Your task to perform on an android device: toggle improve location accuracy Image 0: 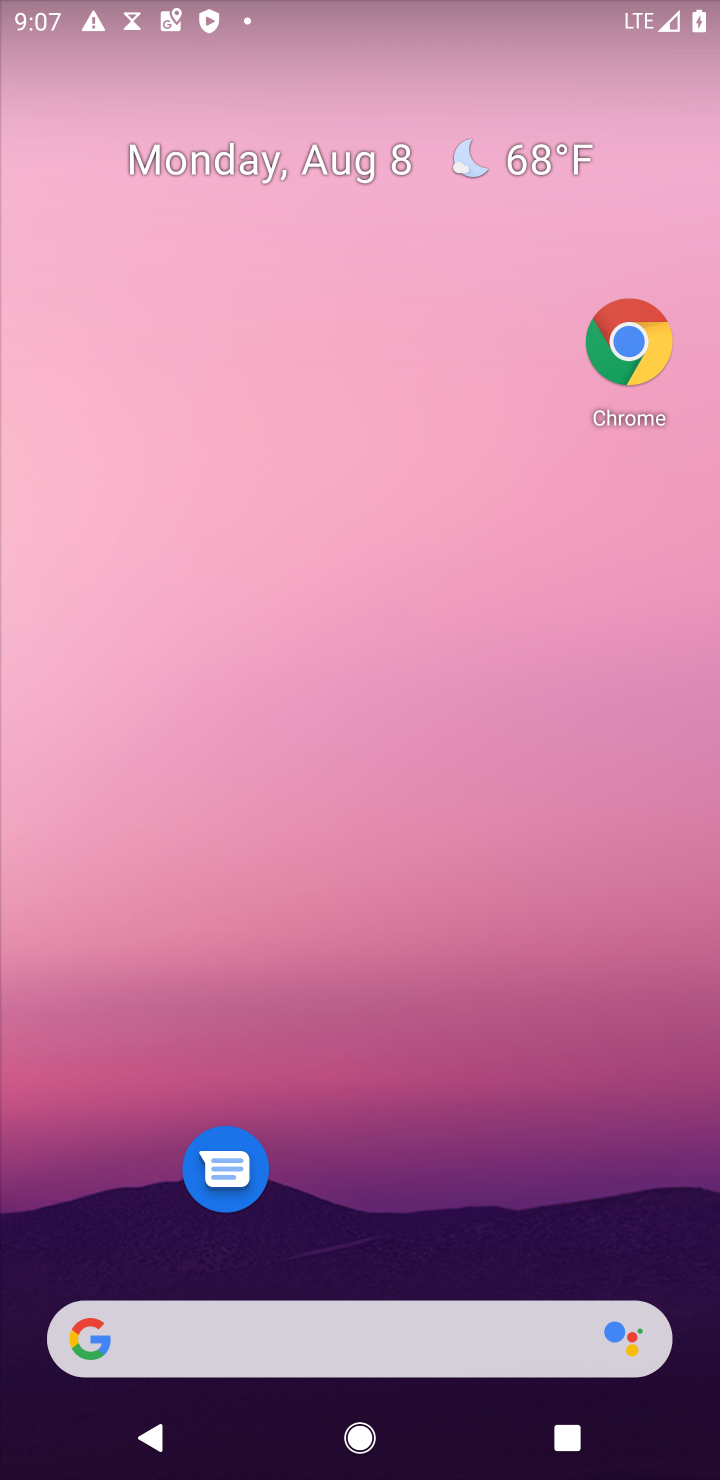
Step 0: press back button
Your task to perform on an android device: toggle improve location accuracy Image 1: 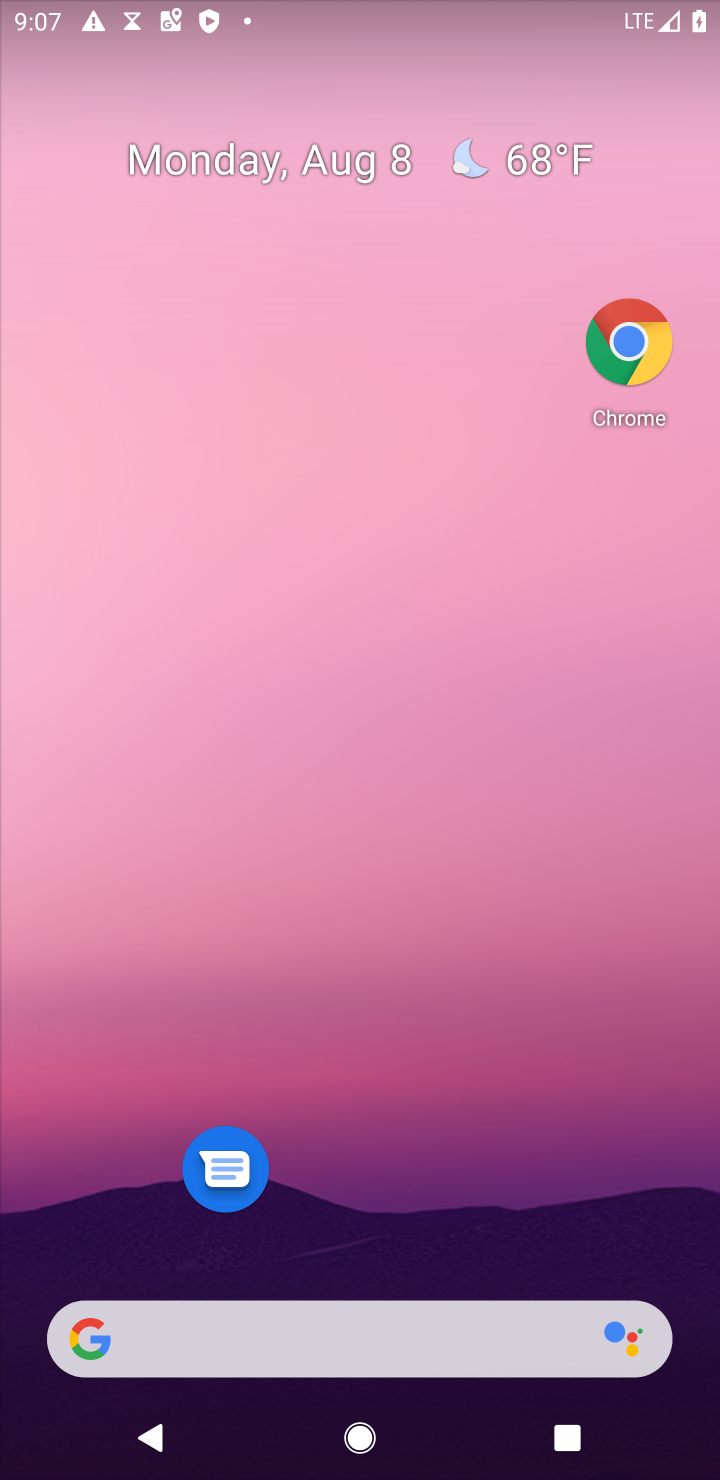
Step 1: drag from (463, 987) to (579, 158)
Your task to perform on an android device: toggle improve location accuracy Image 2: 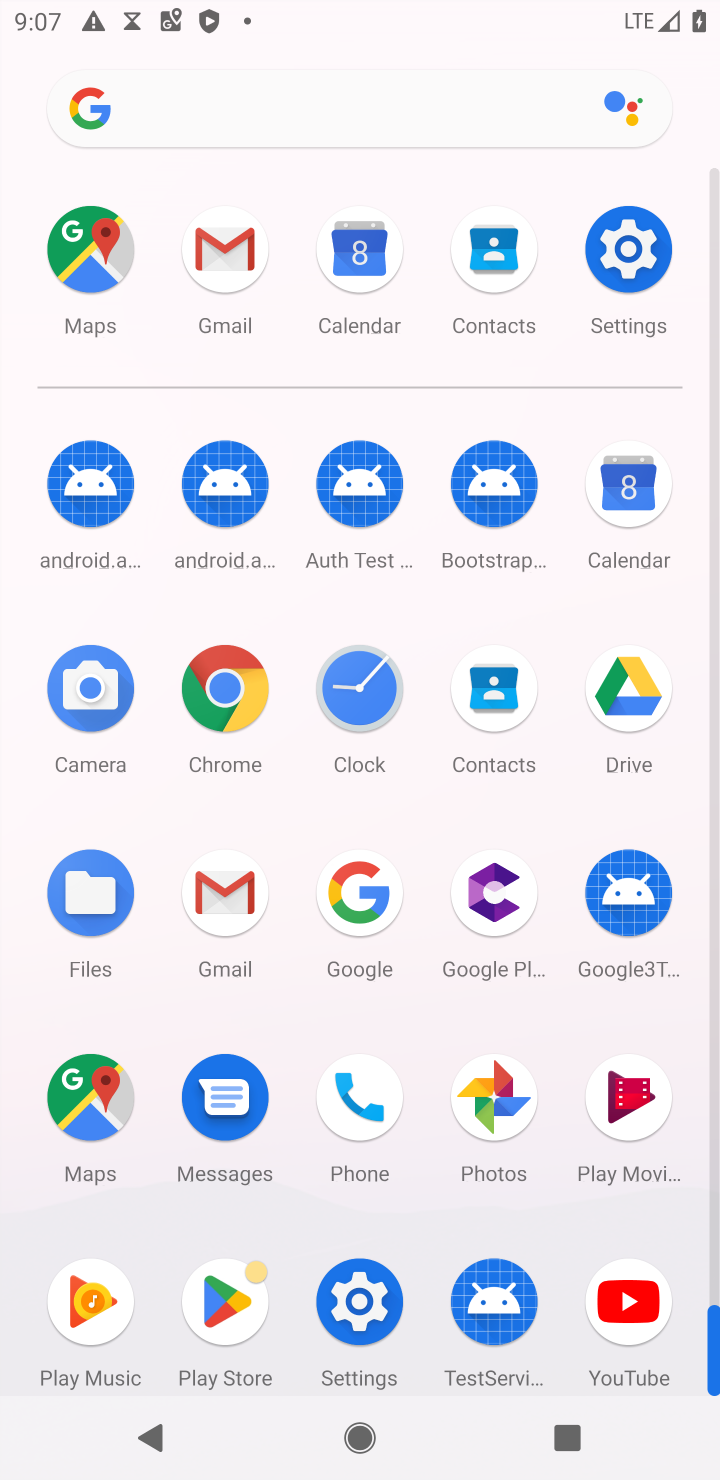
Step 2: click (628, 266)
Your task to perform on an android device: toggle improve location accuracy Image 3: 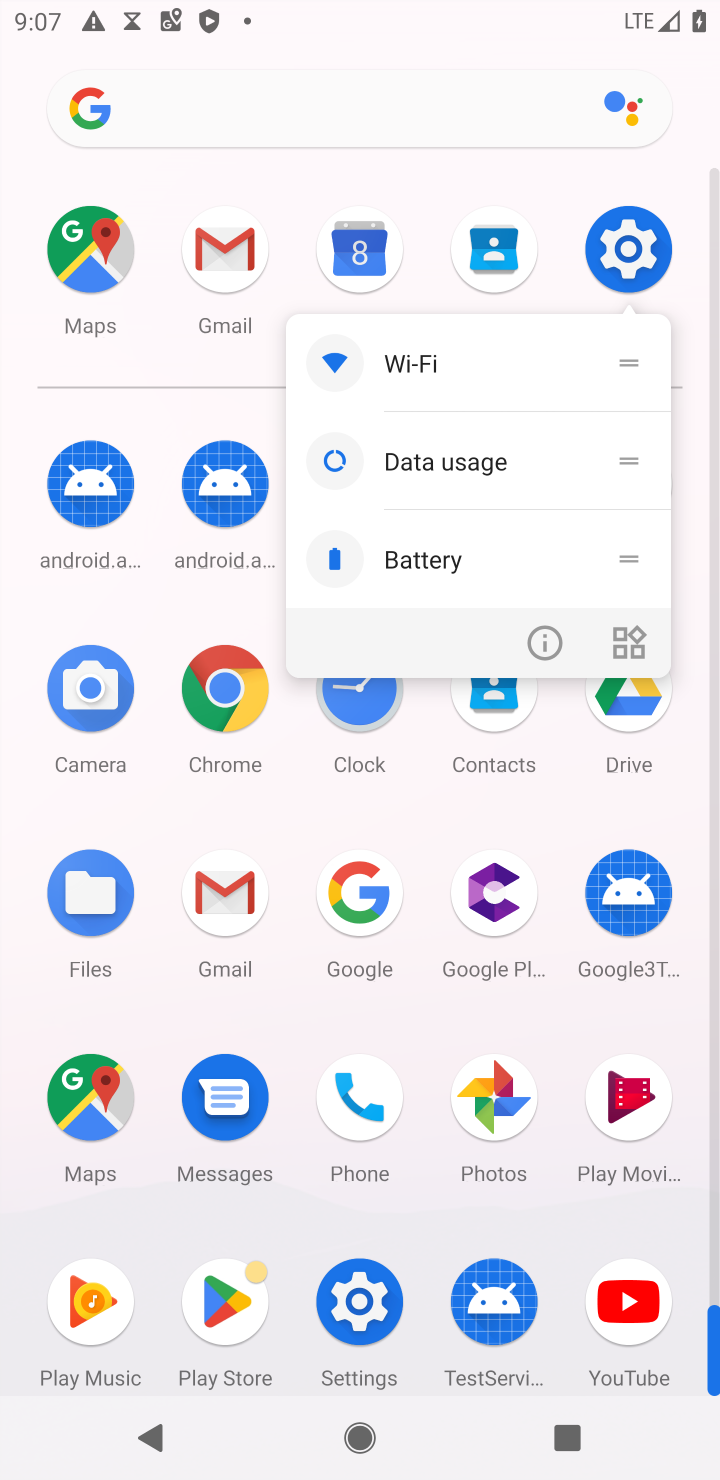
Step 3: click (611, 224)
Your task to perform on an android device: toggle improve location accuracy Image 4: 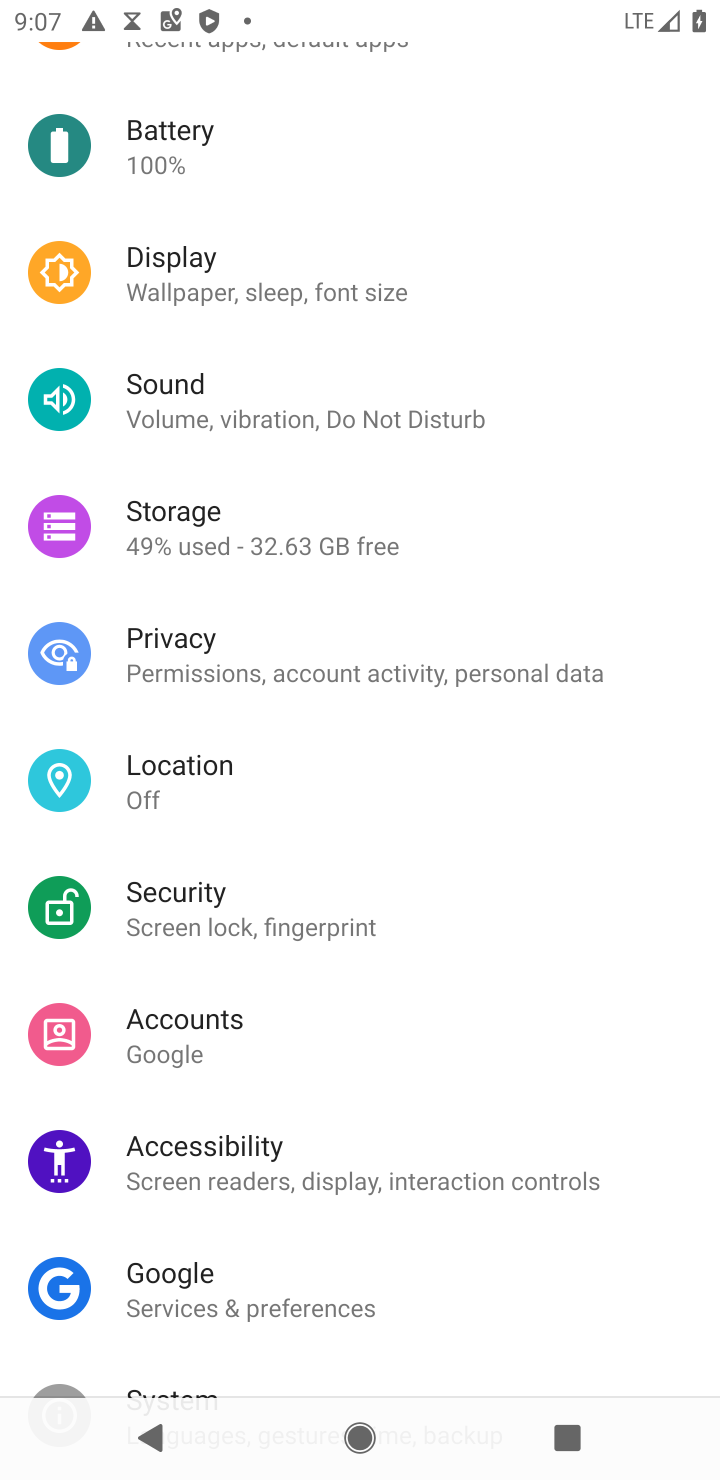
Step 4: click (208, 781)
Your task to perform on an android device: toggle improve location accuracy Image 5: 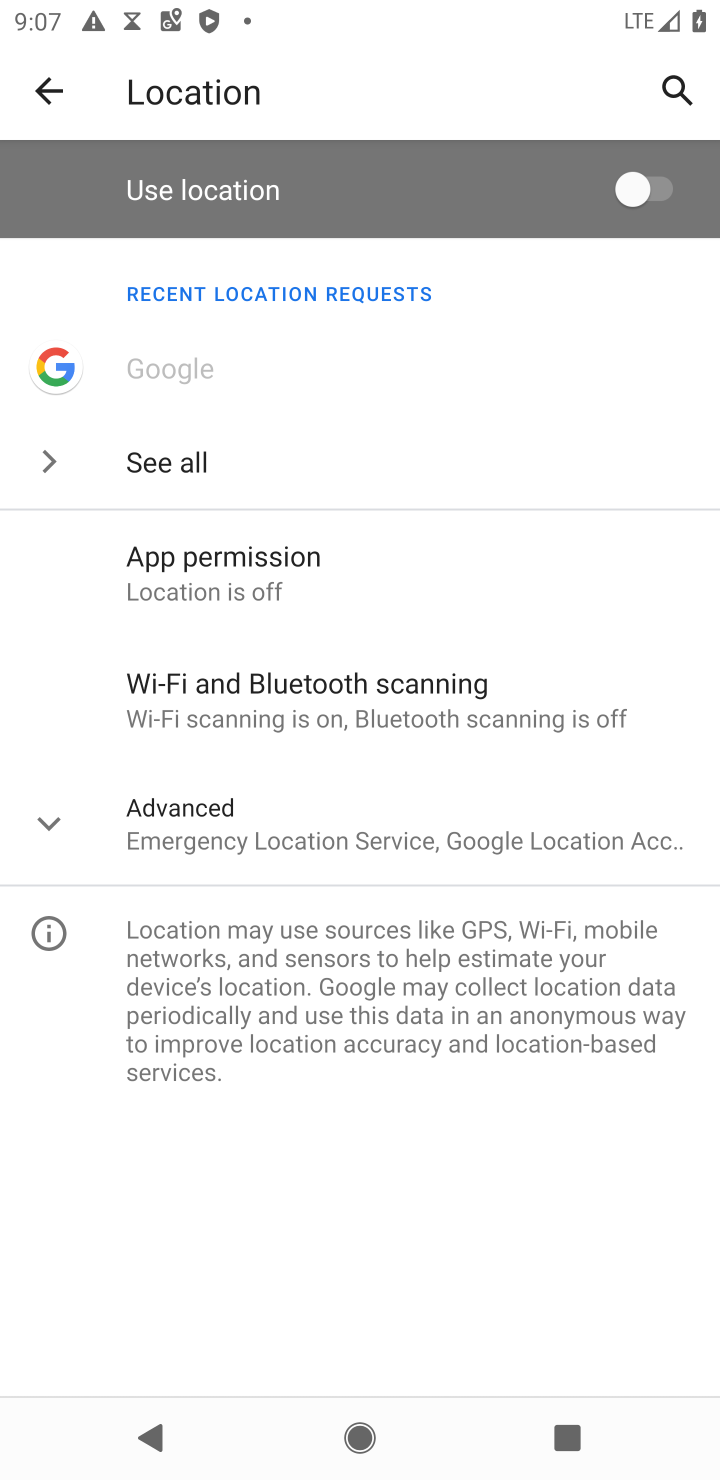
Step 5: click (330, 841)
Your task to perform on an android device: toggle improve location accuracy Image 6: 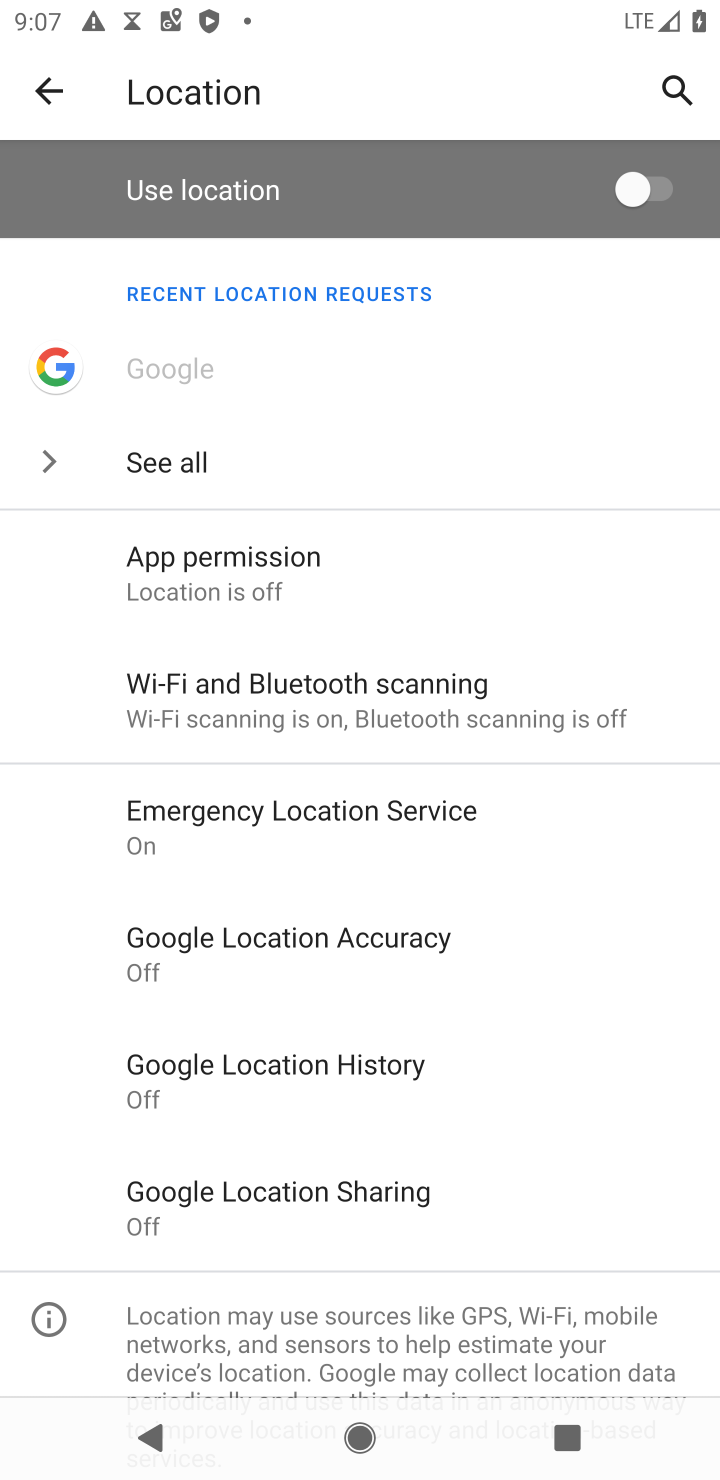
Step 6: click (370, 967)
Your task to perform on an android device: toggle improve location accuracy Image 7: 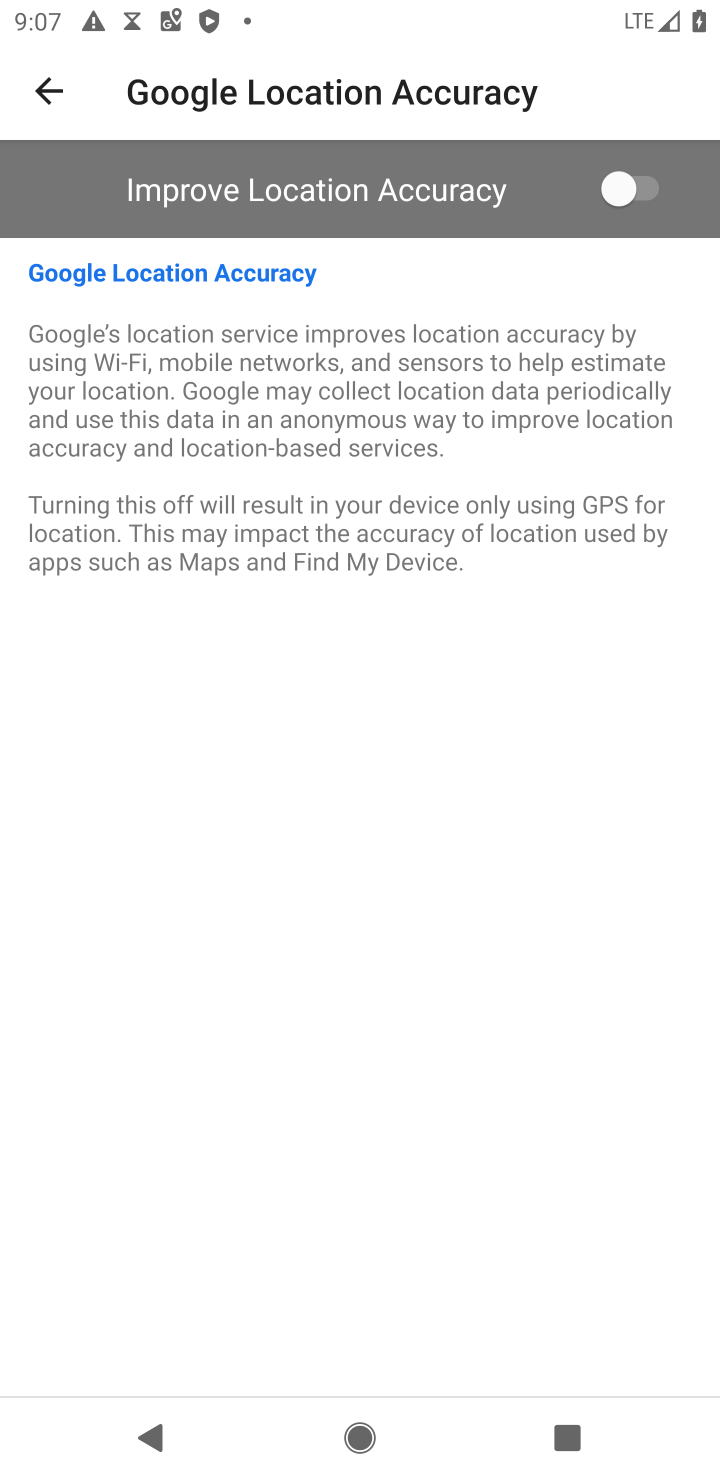
Step 7: click (617, 188)
Your task to perform on an android device: toggle improve location accuracy Image 8: 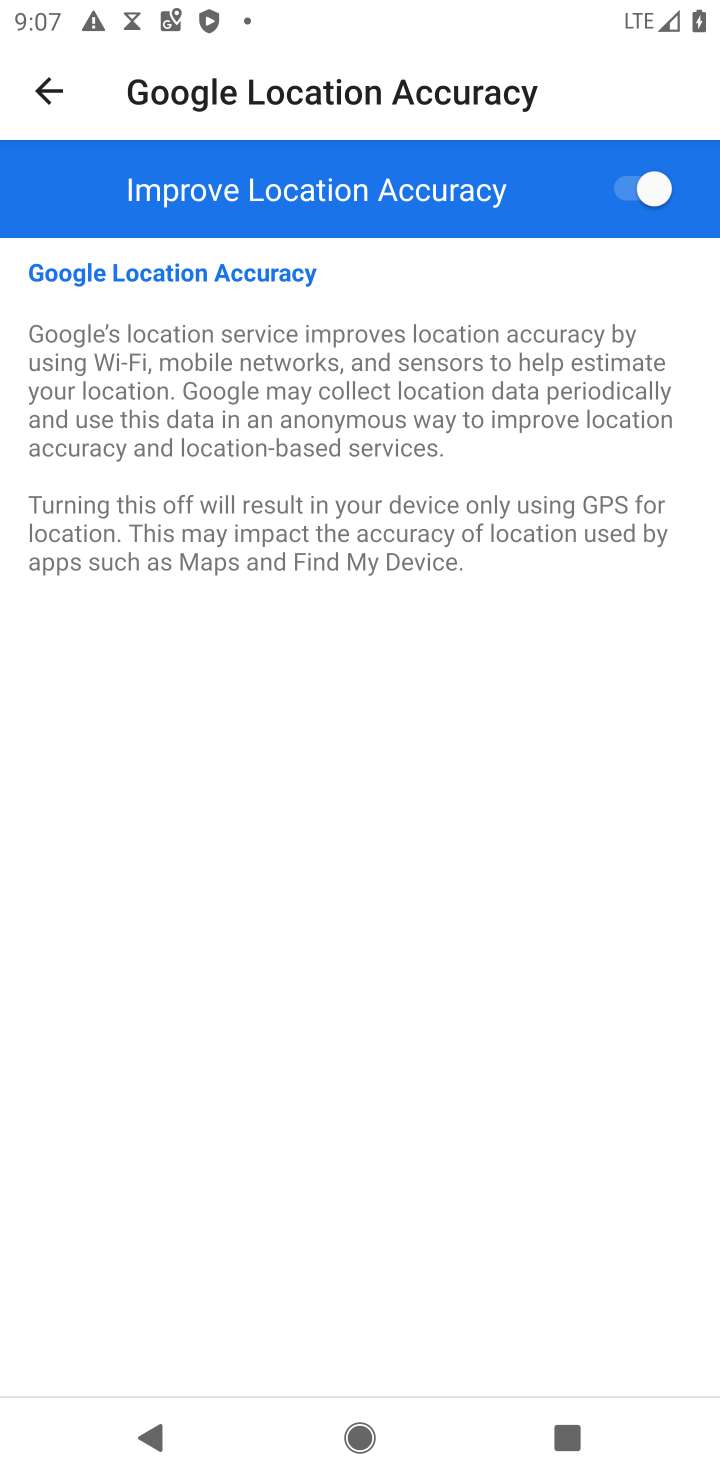
Step 8: task complete